Your task to perform on an android device: turn on the 12-hour format for clock Image 0: 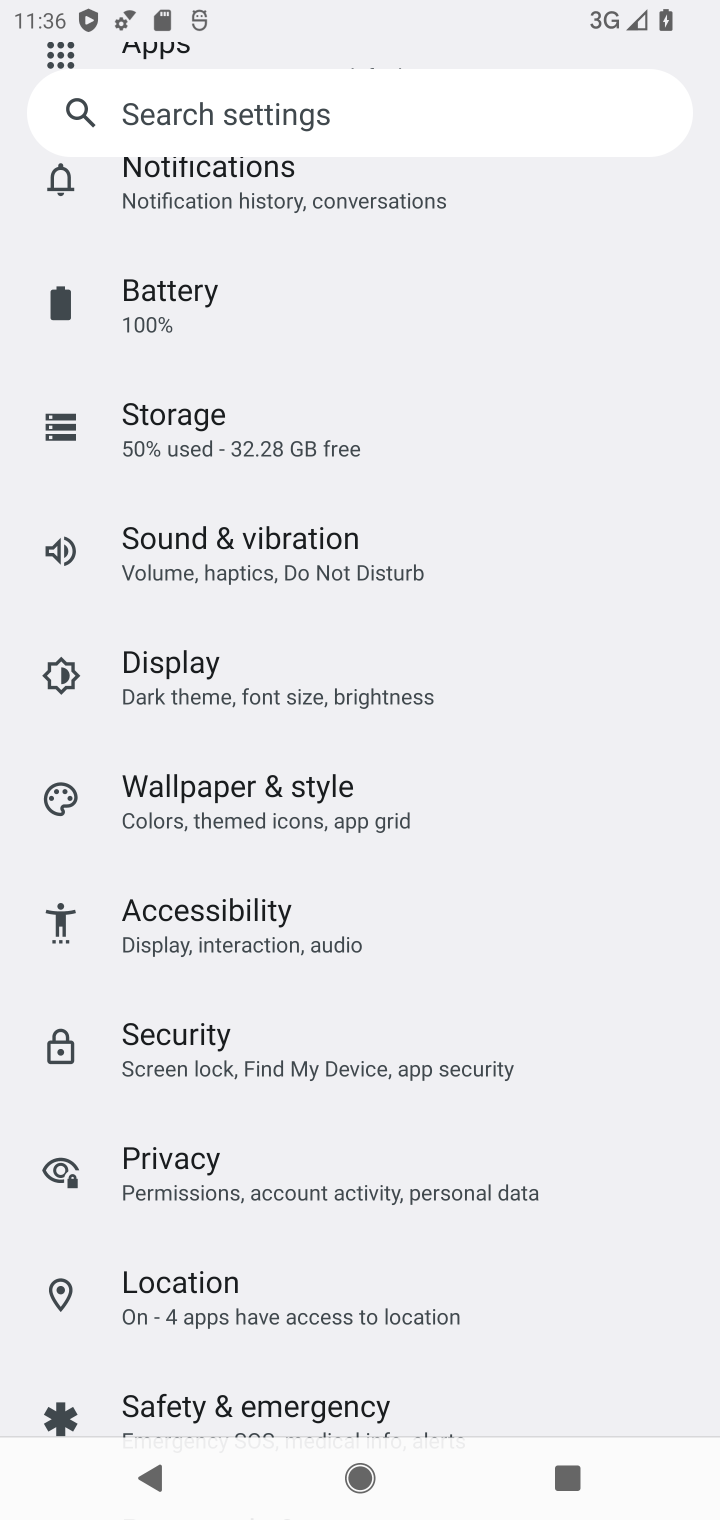
Step 0: press home button
Your task to perform on an android device: turn on the 12-hour format for clock Image 1: 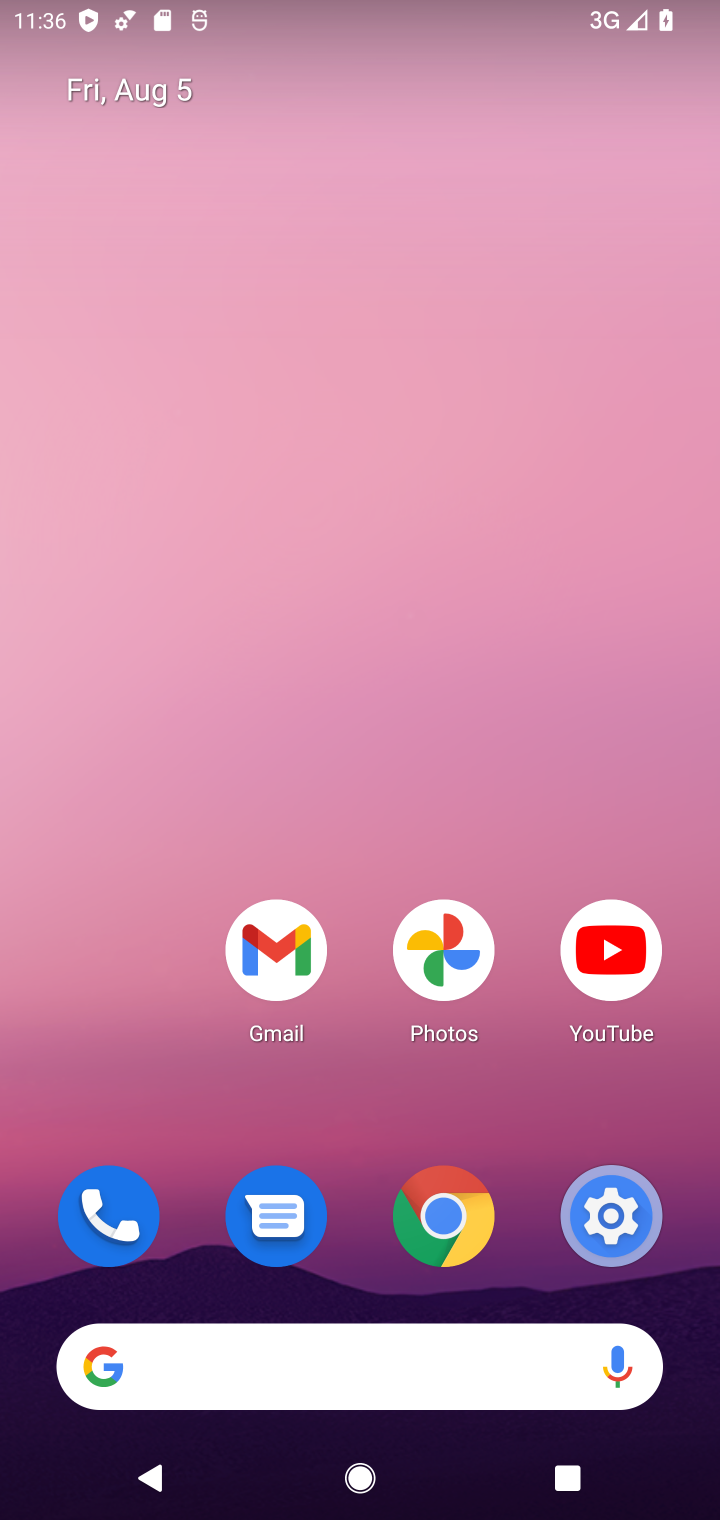
Step 1: drag from (463, 1150) to (419, 212)
Your task to perform on an android device: turn on the 12-hour format for clock Image 2: 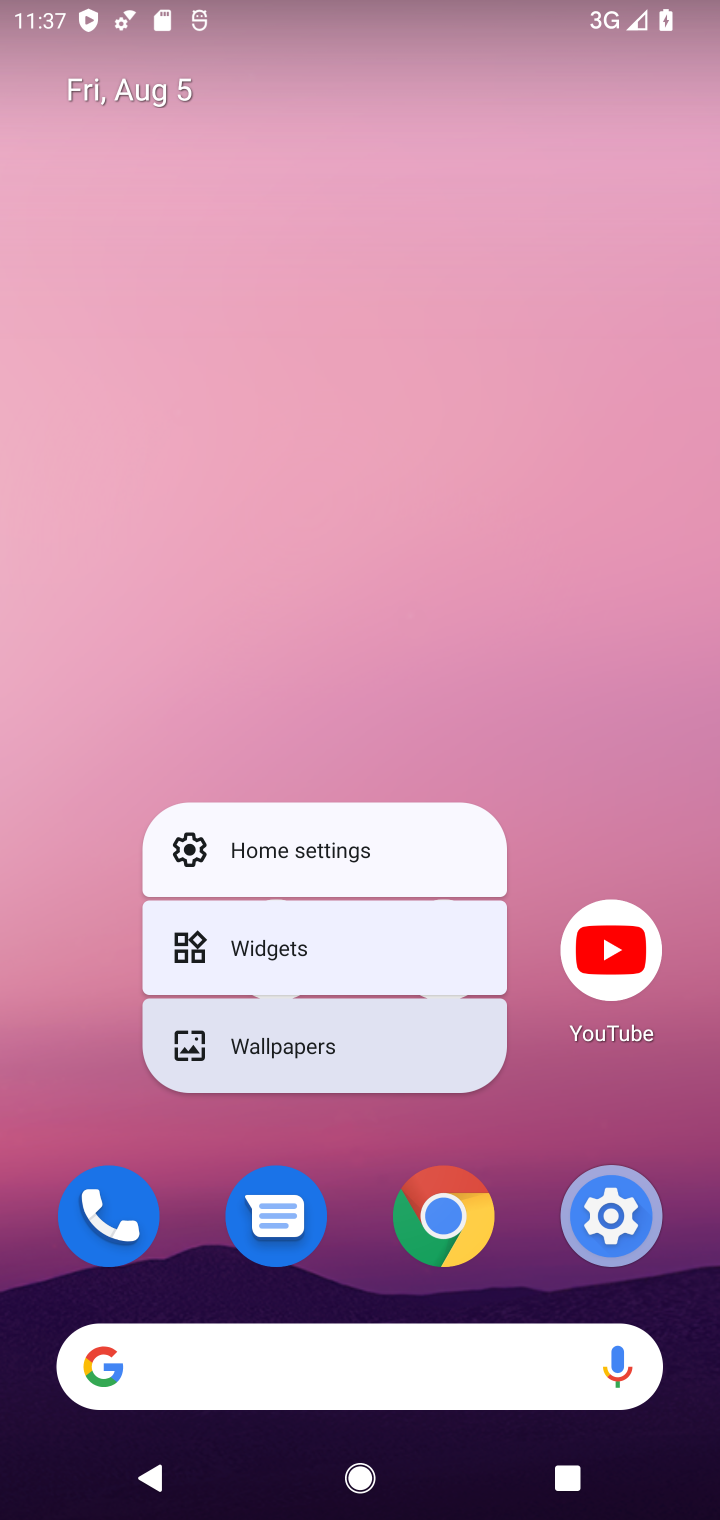
Step 2: click (540, 566)
Your task to perform on an android device: turn on the 12-hour format for clock Image 3: 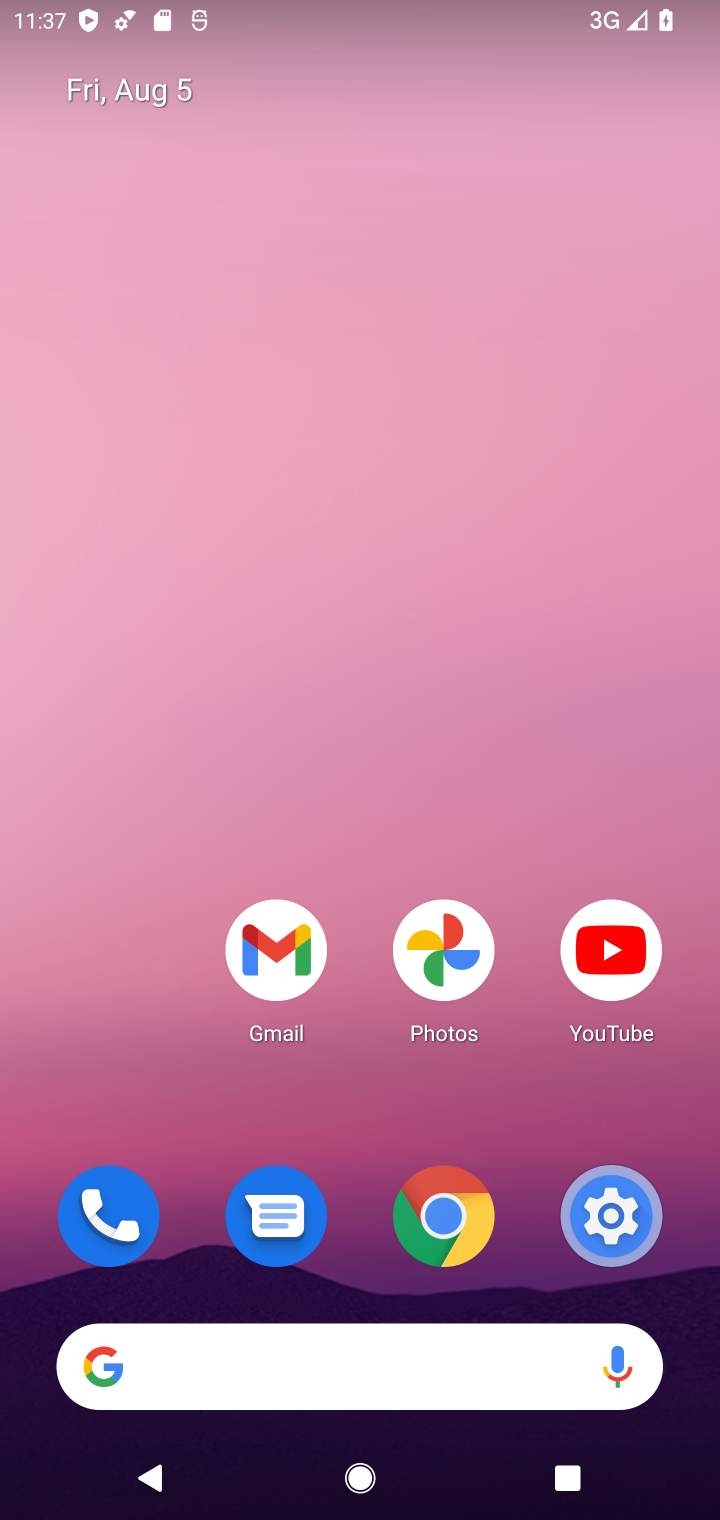
Step 3: drag from (475, 1376) to (473, 2)
Your task to perform on an android device: turn on the 12-hour format for clock Image 4: 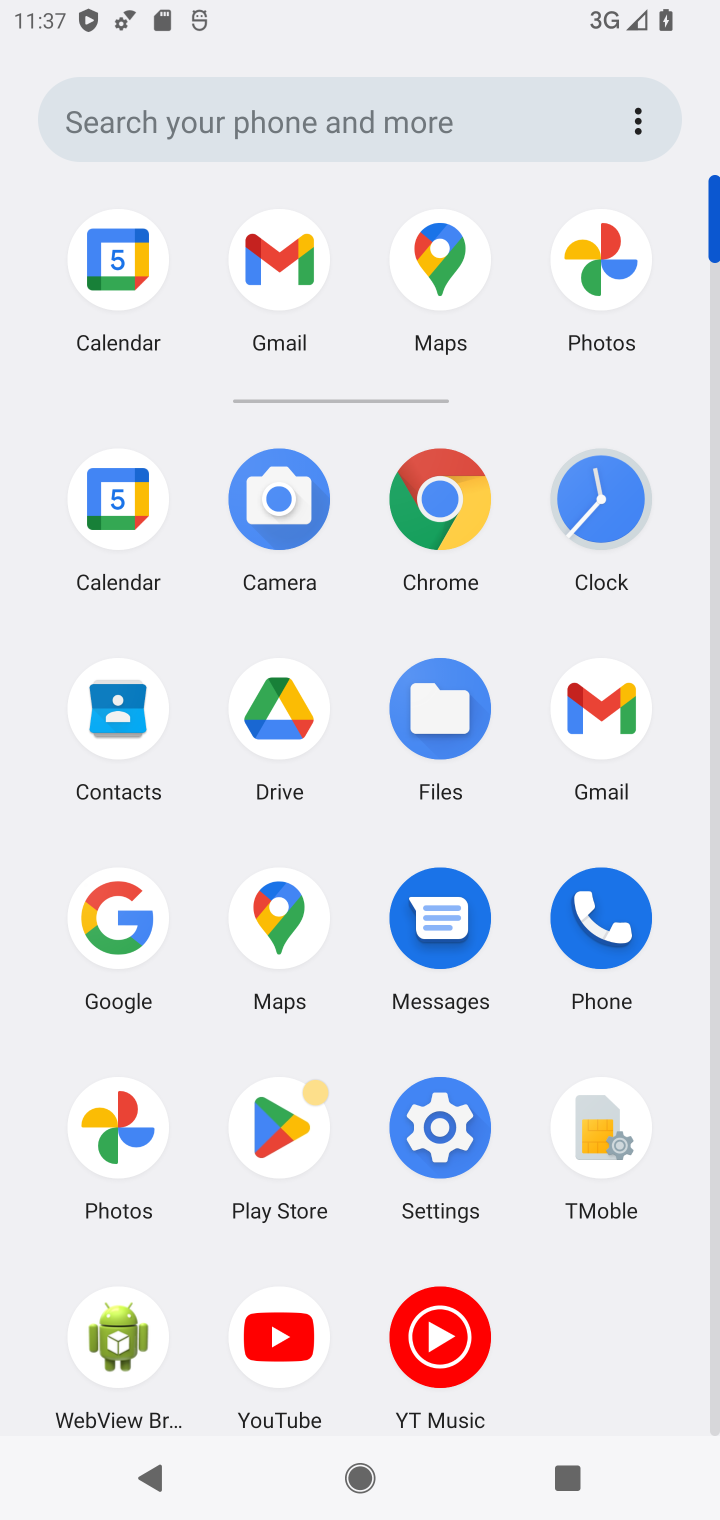
Step 4: click (597, 484)
Your task to perform on an android device: turn on the 12-hour format for clock Image 5: 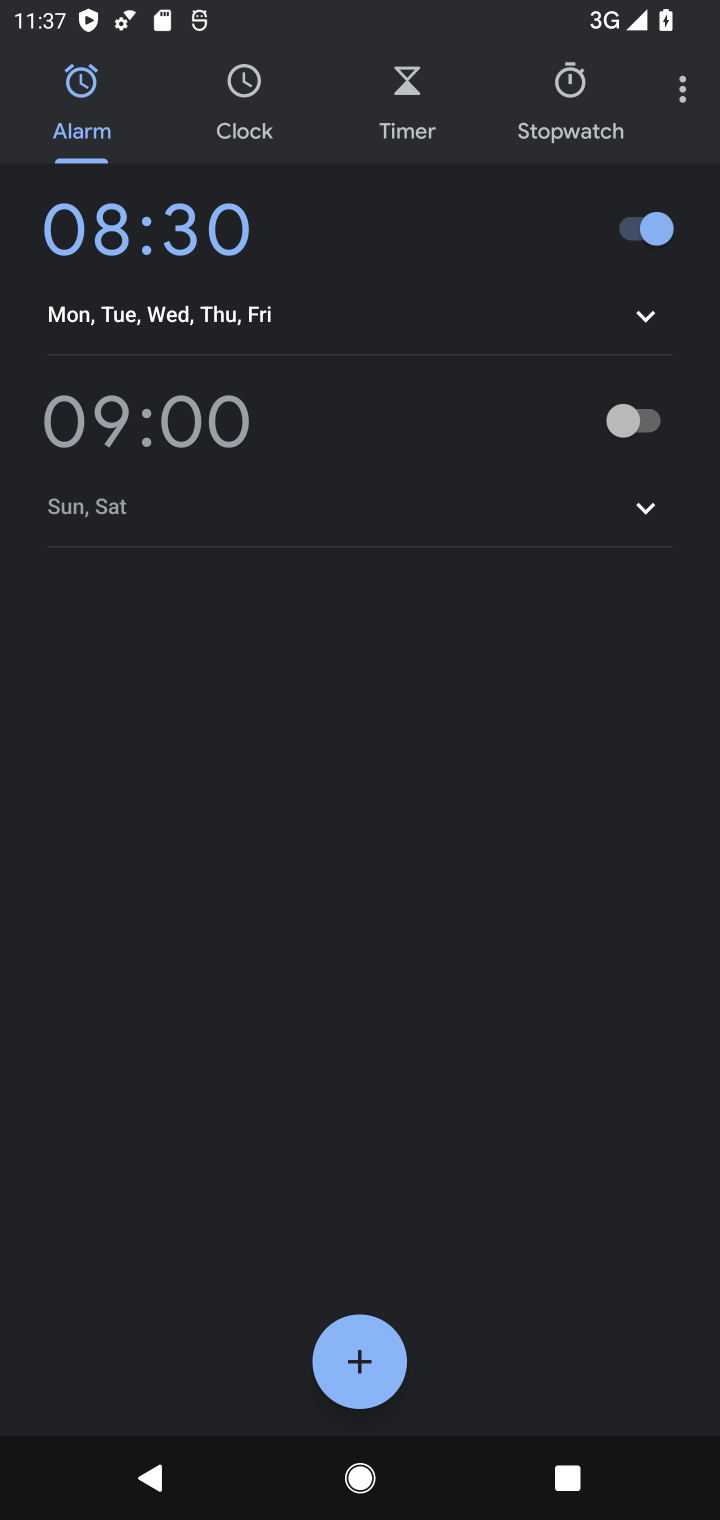
Step 5: click (686, 76)
Your task to perform on an android device: turn on the 12-hour format for clock Image 6: 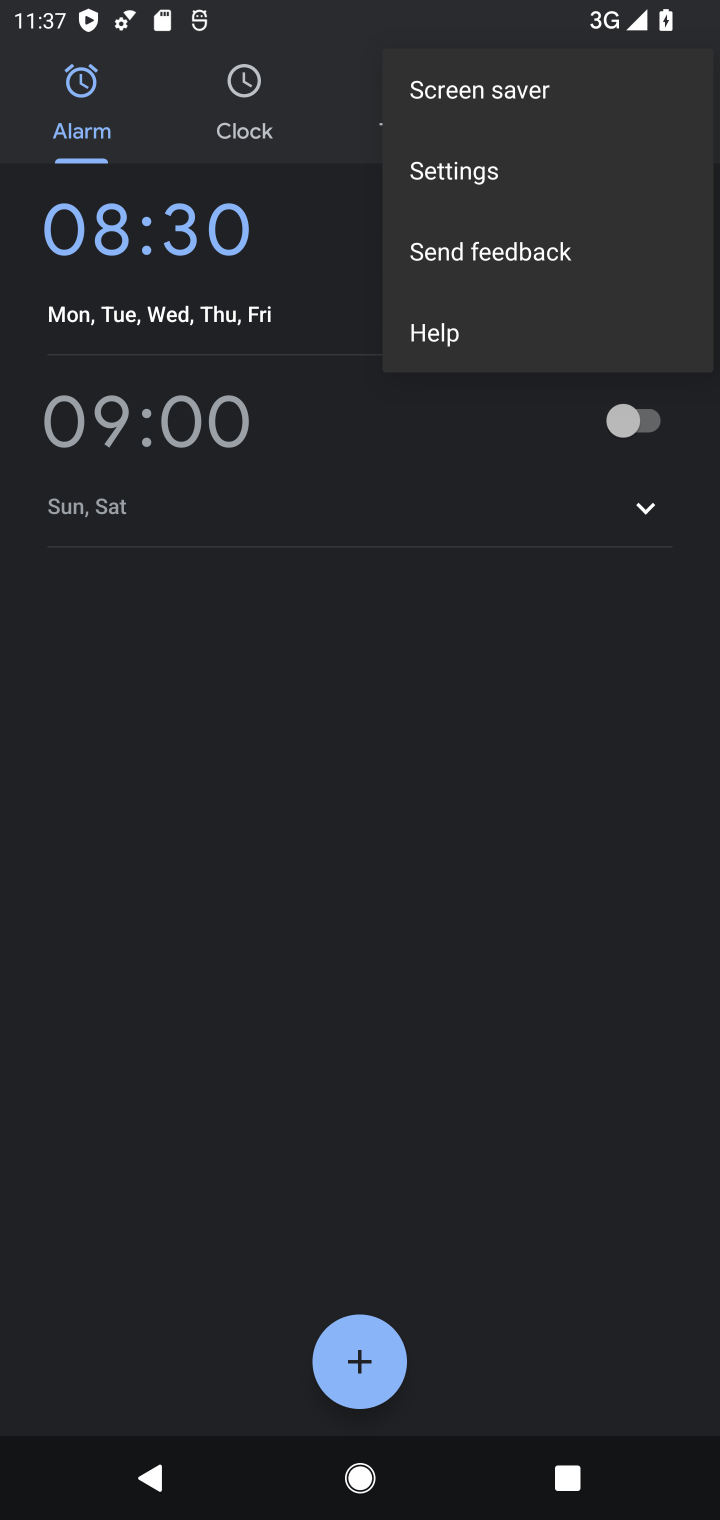
Step 6: click (505, 180)
Your task to perform on an android device: turn on the 12-hour format for clock Image 7: 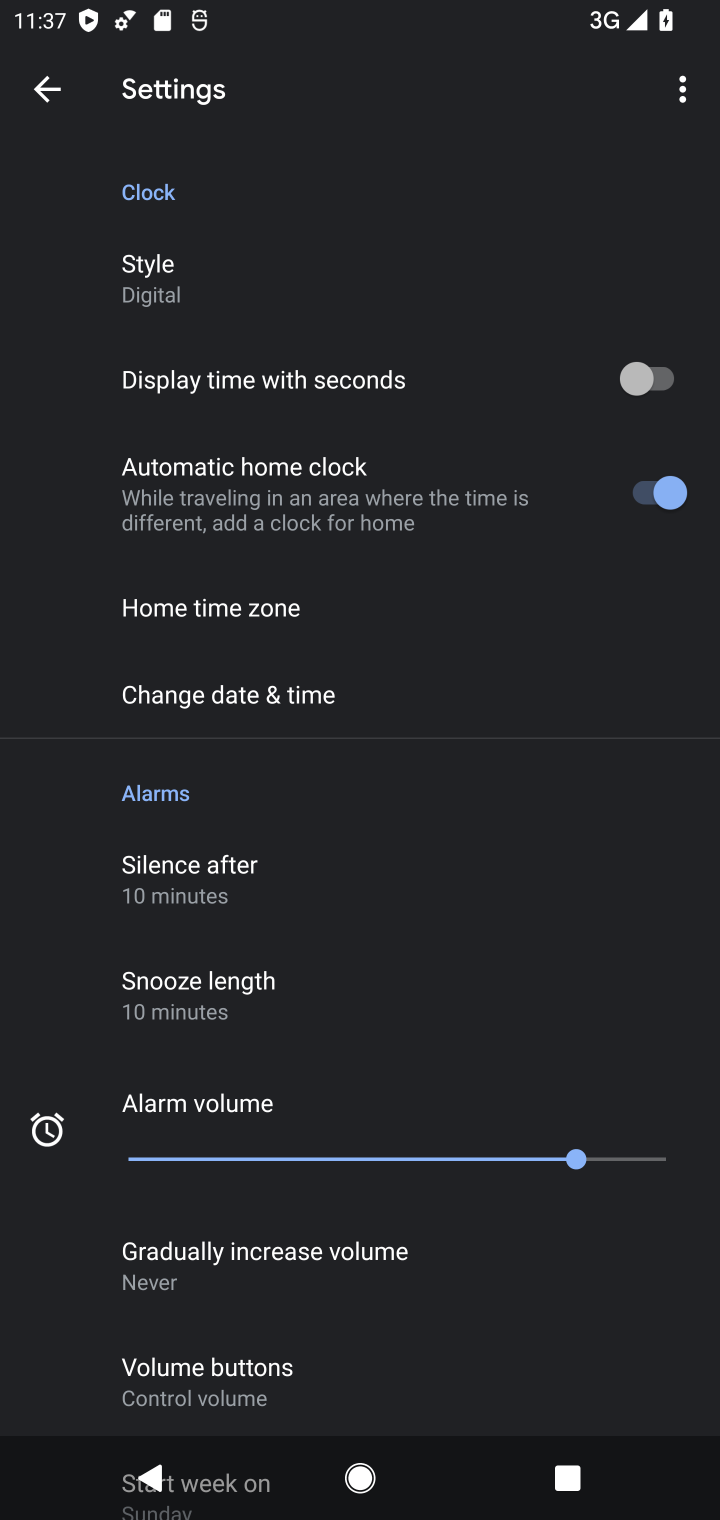
Step 7: click (397, 699)
Your task to perform on an android device: turn on the 12-hour format for clock Image 8: 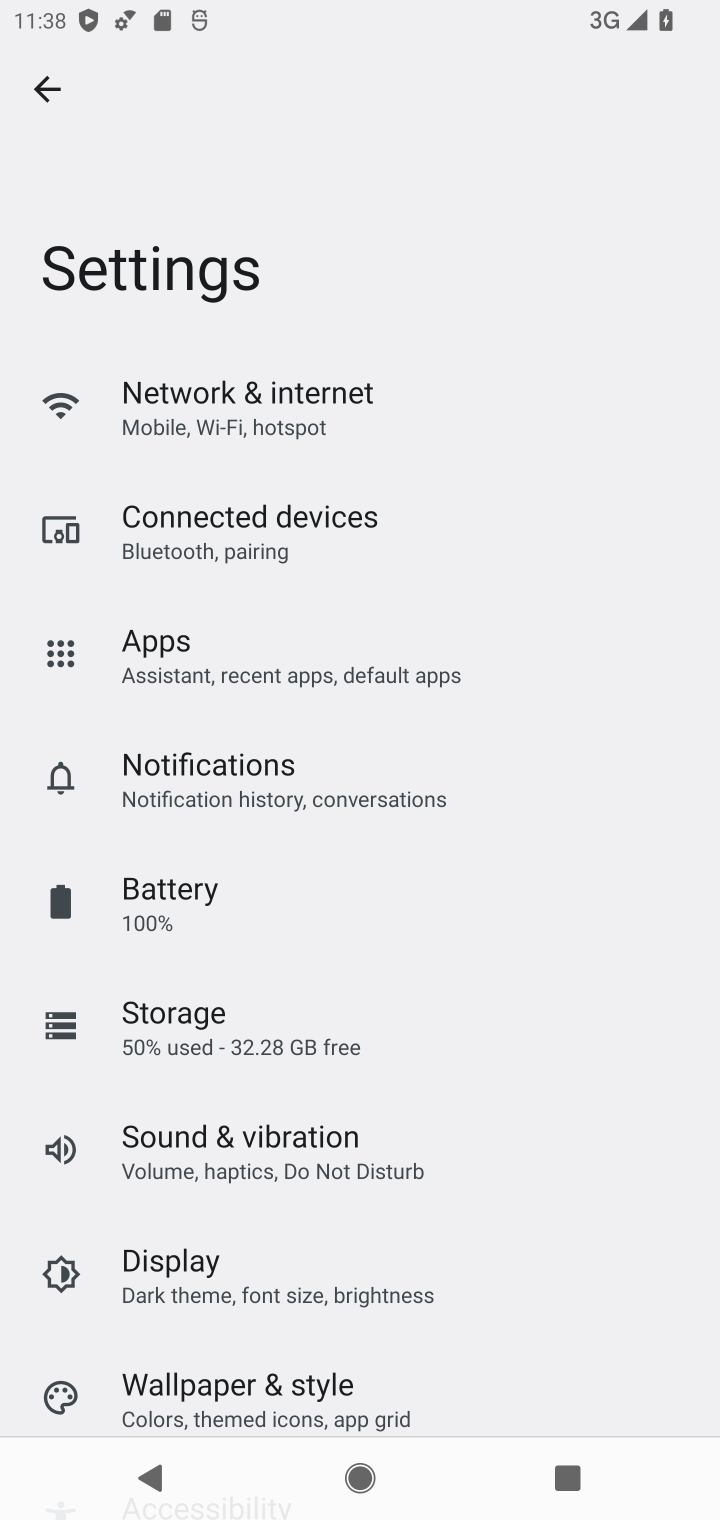
Step 8: press home button
Your task to perform on an android device: turn on the 12-hour format for clock Image 9: 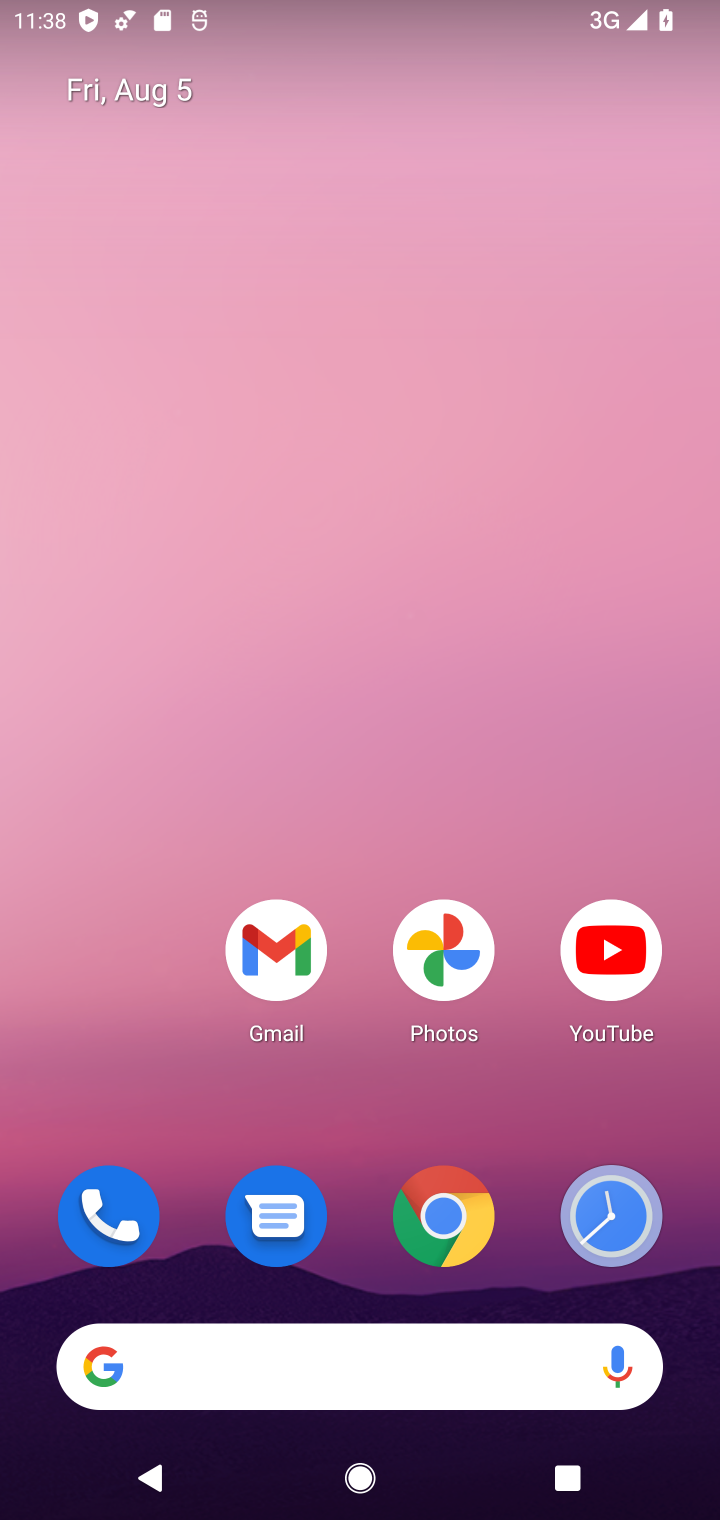
Step 9: drag from (347, 1120) to (454, 73)
Your task to perform on an android device: turn on the 12-hour format for clock Image 10: 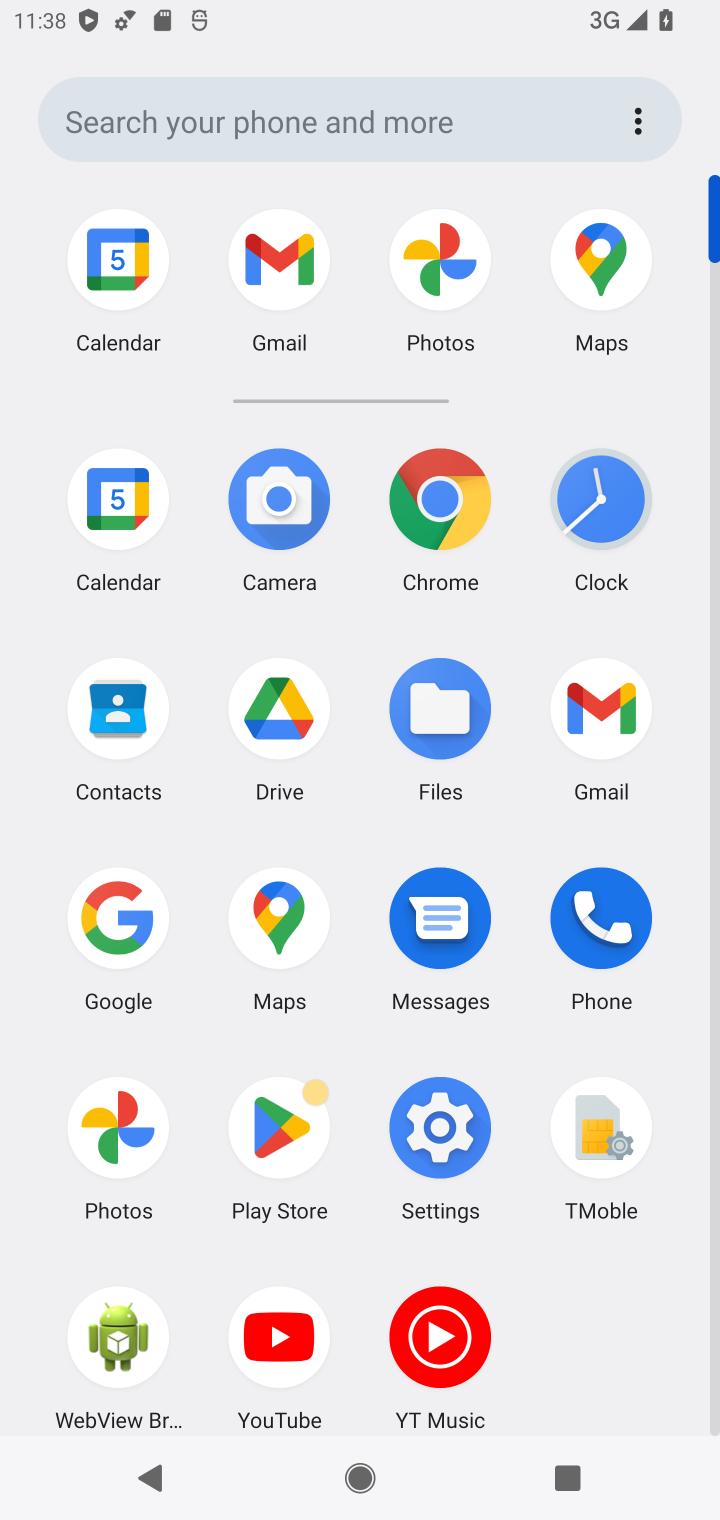
Step 10: click (580, 513)
Your task to perform on an android device: turn on the 12-hour format for clock Image 11: 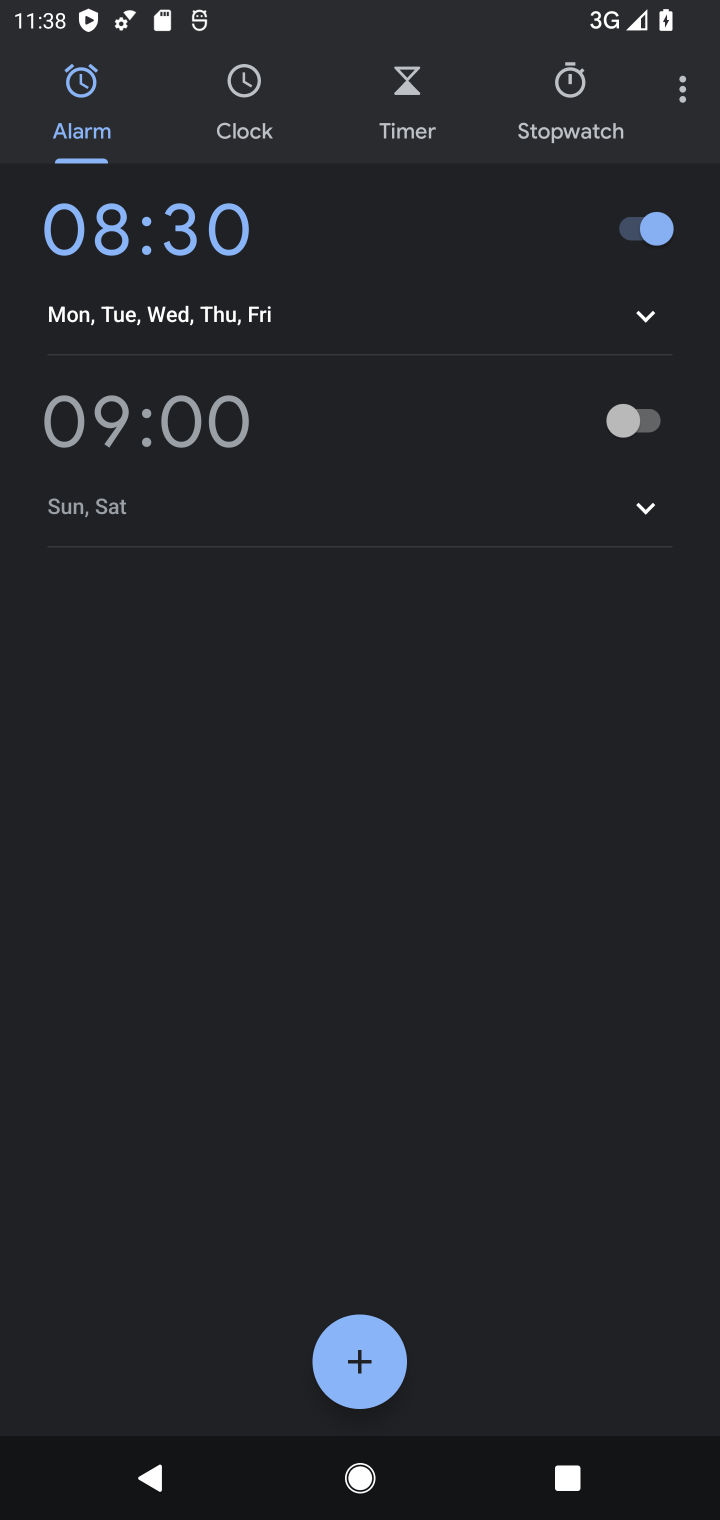
Step 11: click (696, 87)
Your task to perform on an android device: turn on the 12-hour format for clock Image 12: 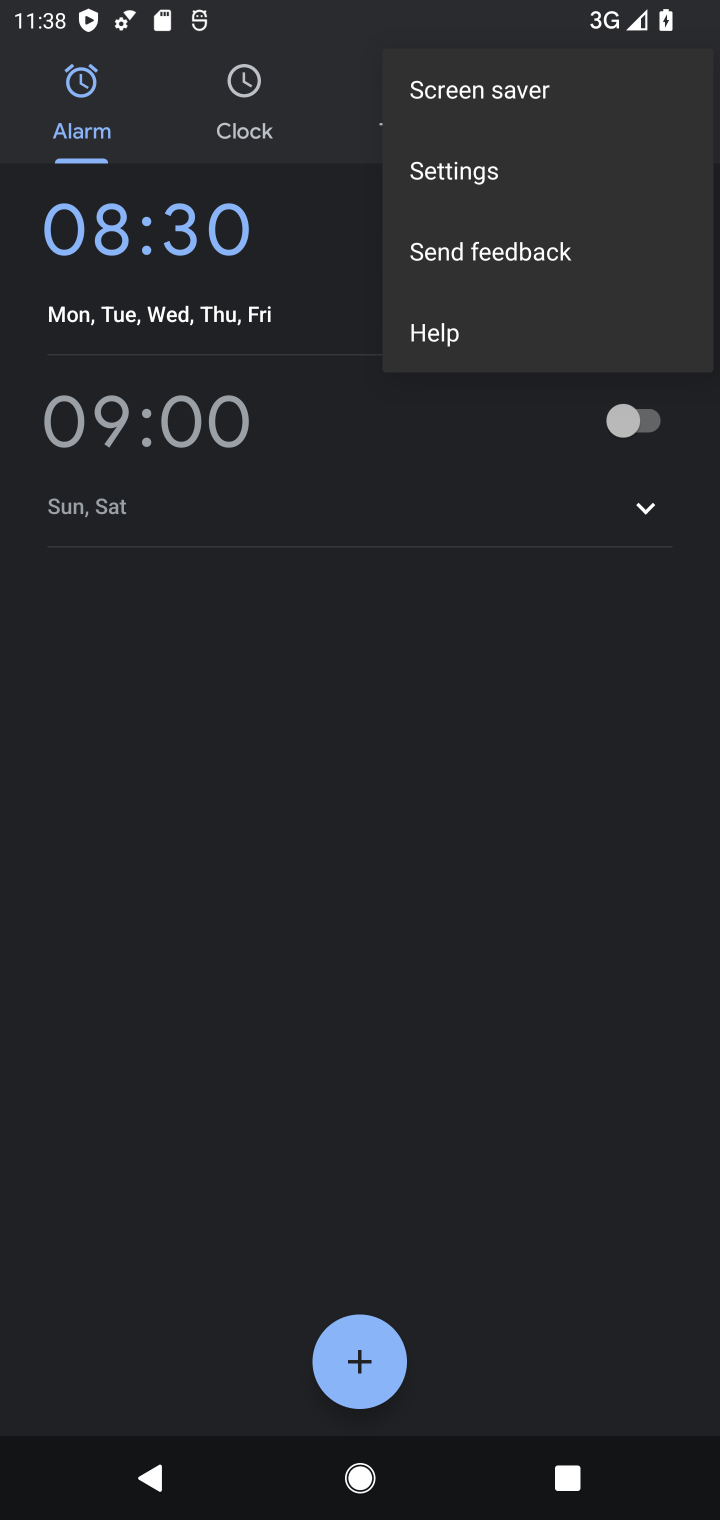
Step 12: click (510, 164)
Your task to perform on an android device: turn on the 12-hour format for clock Image 13: 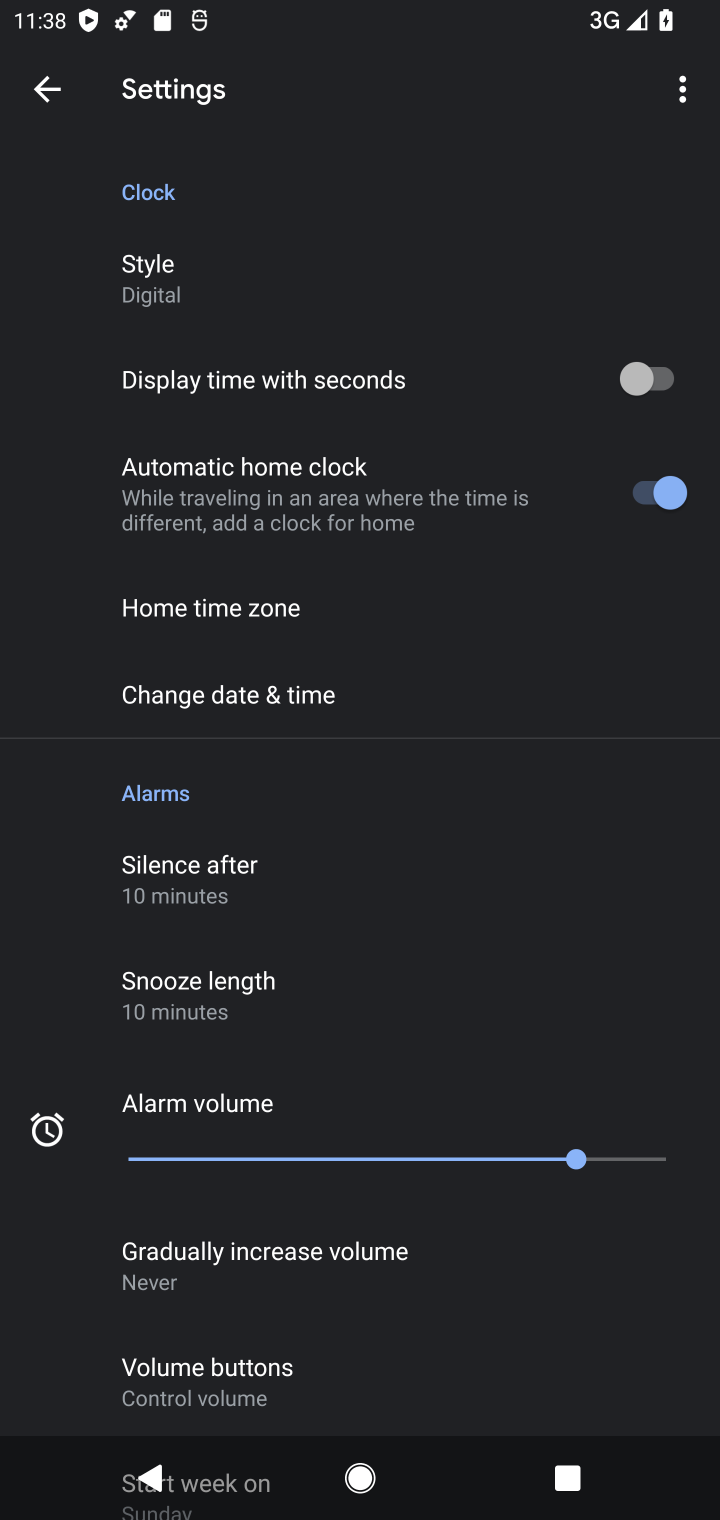
Step 13: click (275, 704)
Your task to perform on an android device: turn on the 12-hour format for clock Image 14: 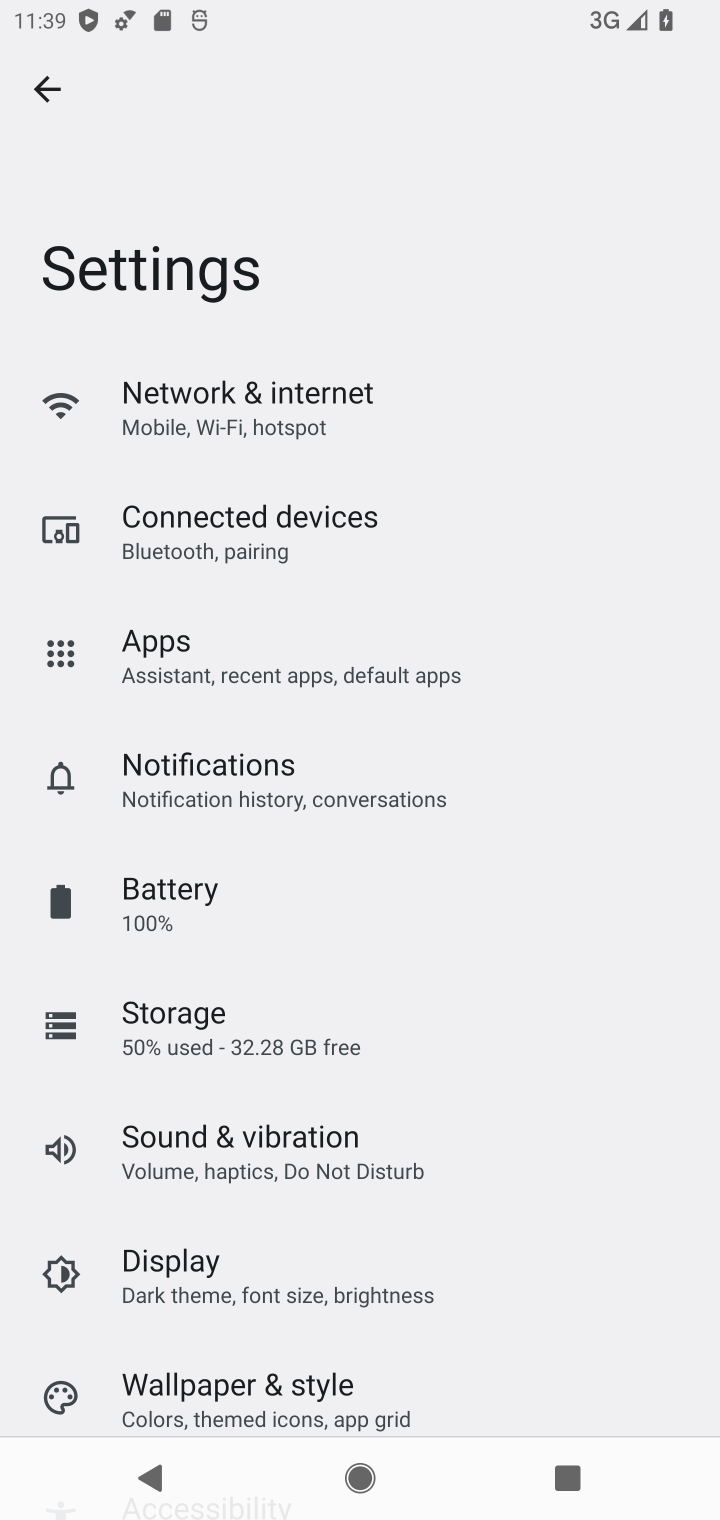
Step 14: press back button
Your task to perform on an android device: turn on the 12-hour format for clock Image 15: 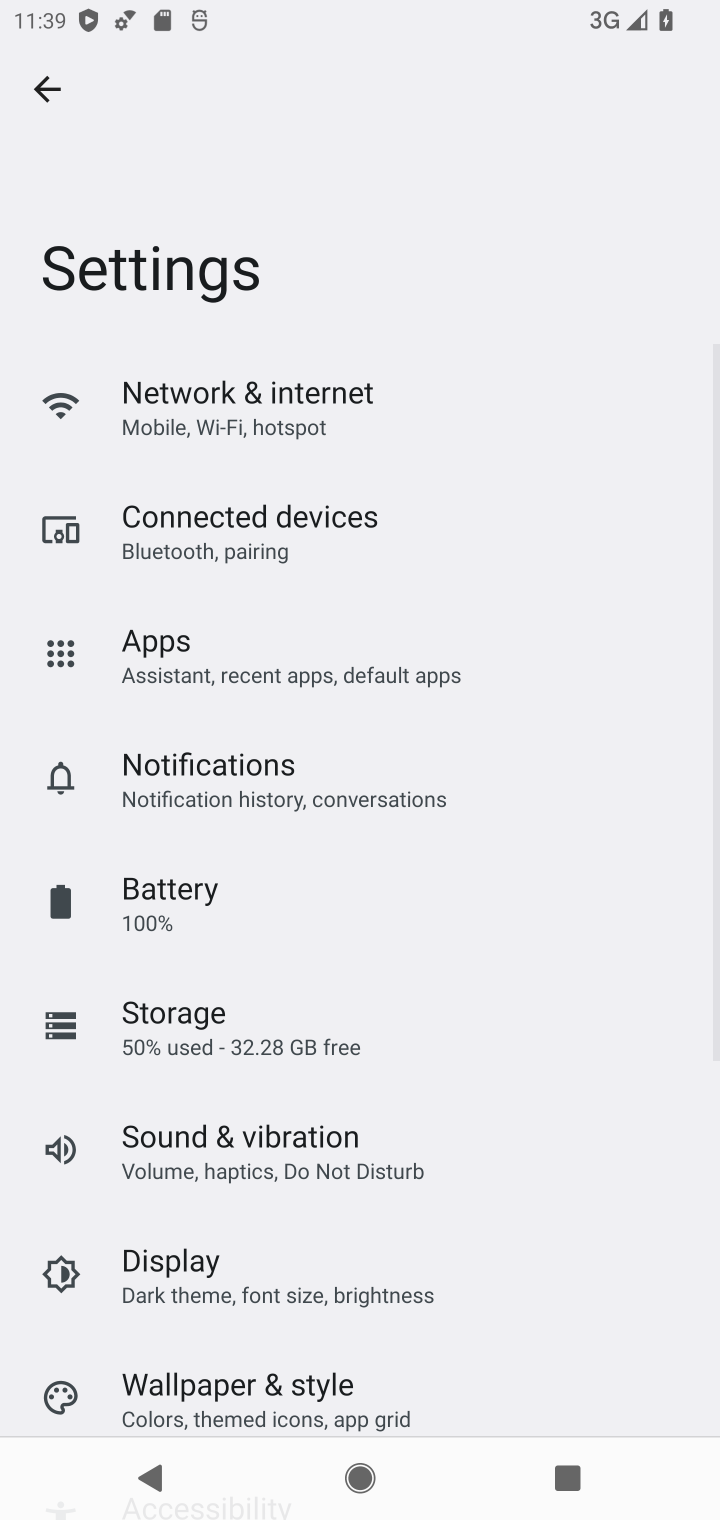
Step 15: press back button
Your task to perform on an android device: turn on the 12-hour format for clock Image 16: 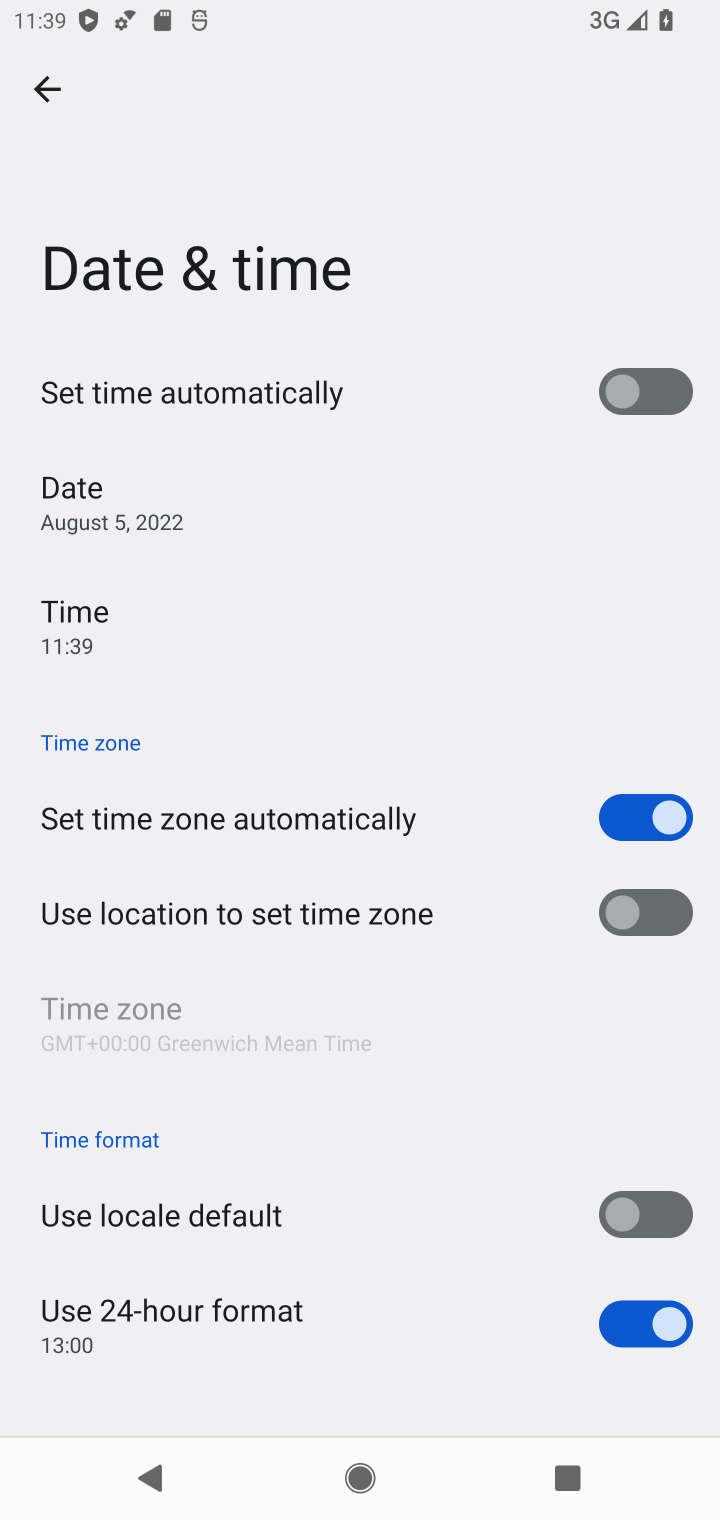
Step 16: click (612, 1326)
Your task to perform on an android device: turn on the 12-hour format for clock Image 17: 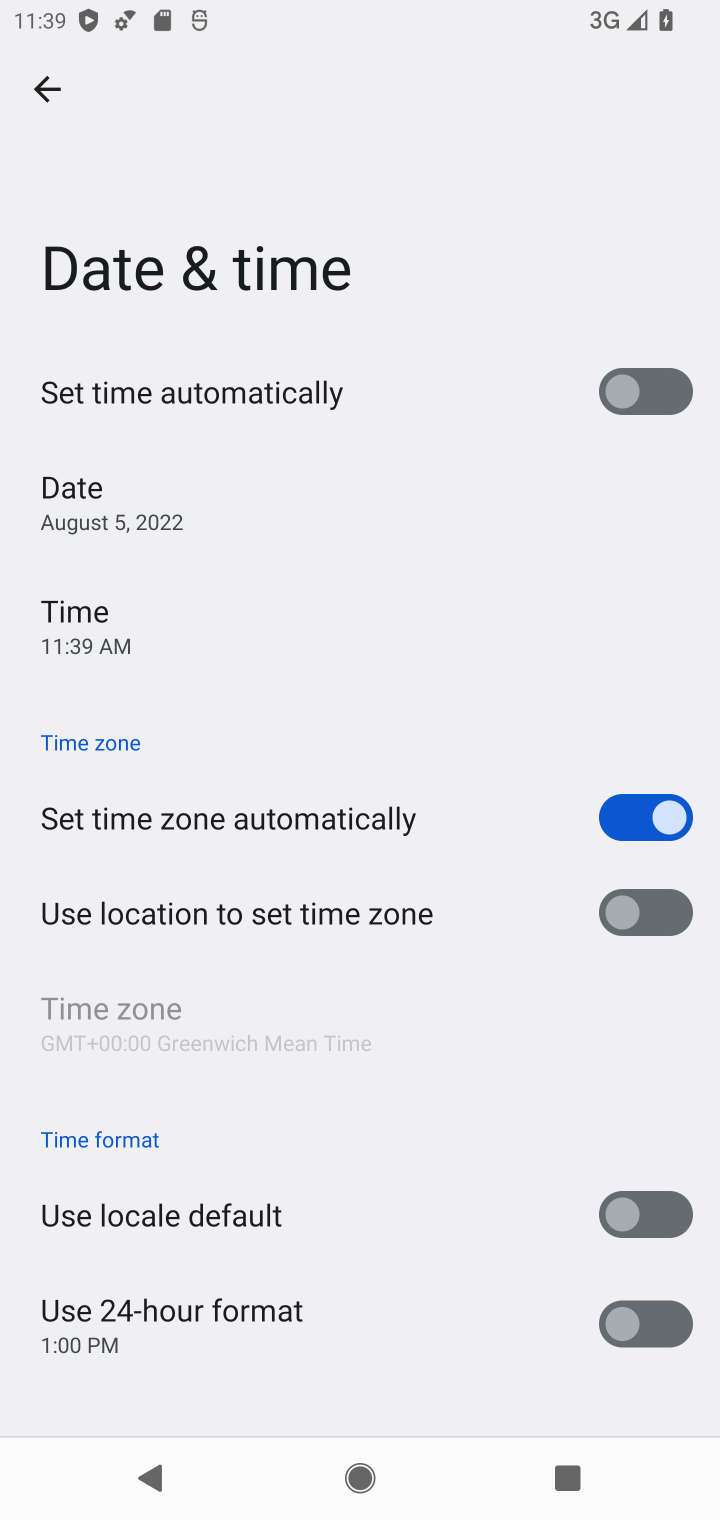
Step 17: task complete